Your task to perform on an android device: What's on my calendar today? Image 0: 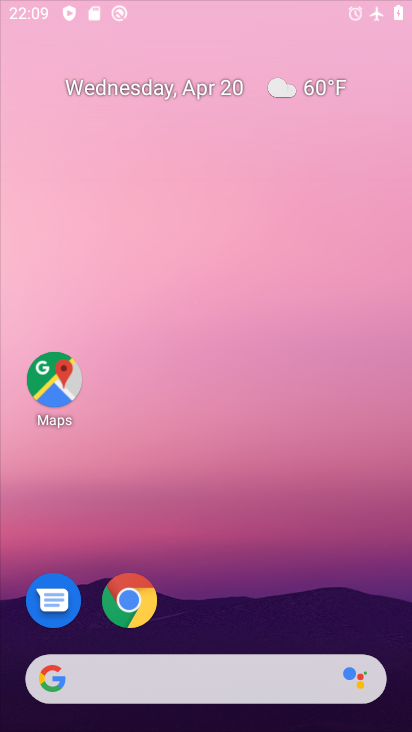
Step 0: drag from (209, 633) to (200, 216)
Your task to perform on an android device: What's on my calendar today? Image 1: 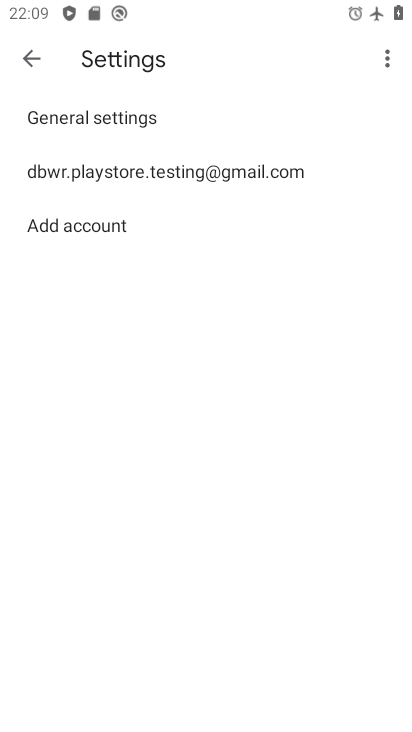
Step 1: press home button
Your task to perform on an android device: What's on my calendar today? Image 2: 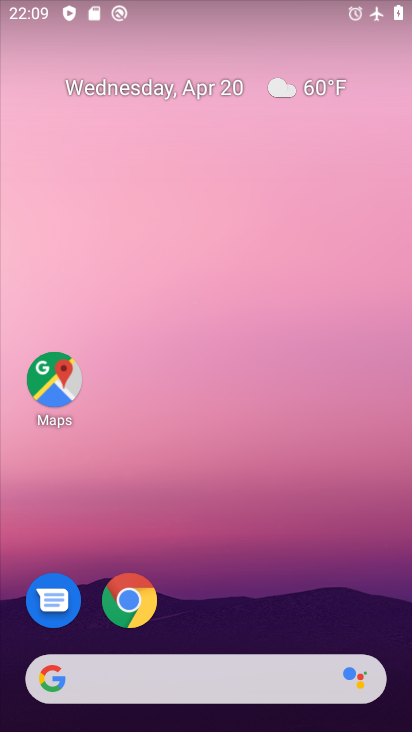
Step 2: drag from (192, 645) to (115, 98)
Your task to perform on an android device: What's on my calendar today? Image 3: 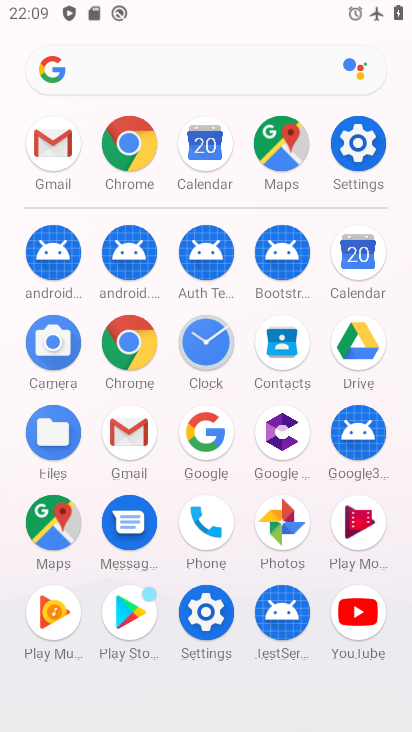
Step 3: click (347, 265)
Your task to perform on an android device: What's on my calendar today? Image 4: 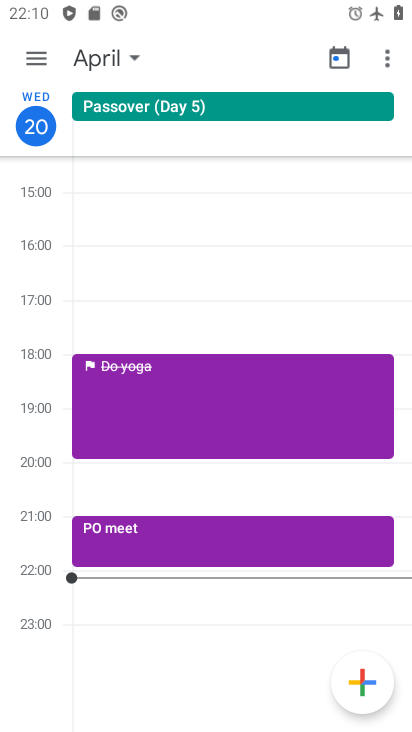
Step 4: task complete